Your task to perform on an android device: turn off priority inbox in the gmail app Image 0: 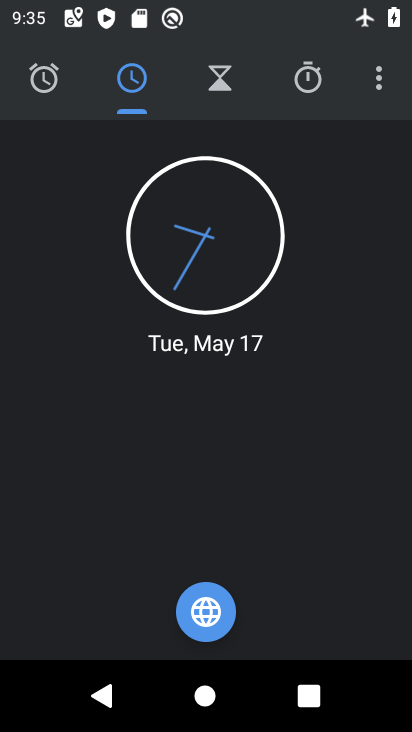
Step 0: press home button
Your task to perform on an android device: turn off priority inbox in the gmail app Image 1: 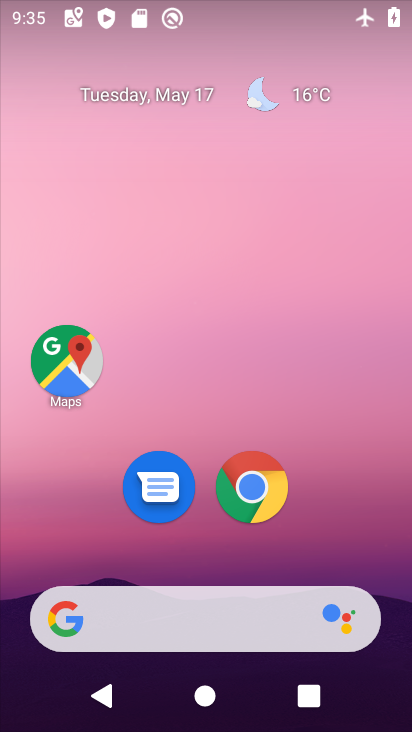
Step 1: drag from (203, 519) to (207, 7)
Your task to perform on an android device: turn off priority inbox in the gmail app Image 2: 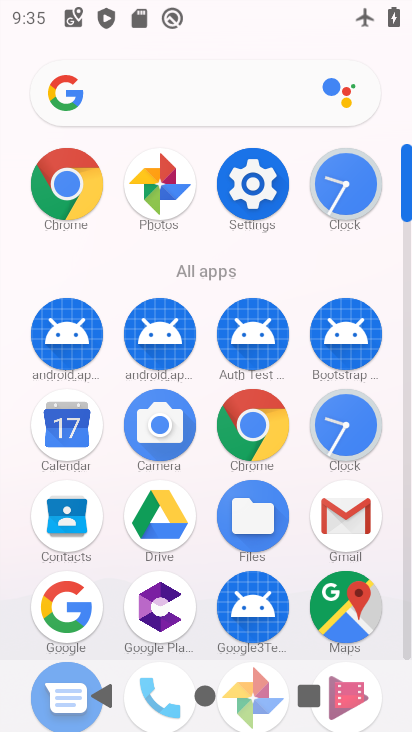
Step 2: click (336, 510)
Your task to perform on an android device: turn off priority inbox in the gmail app Image 3: 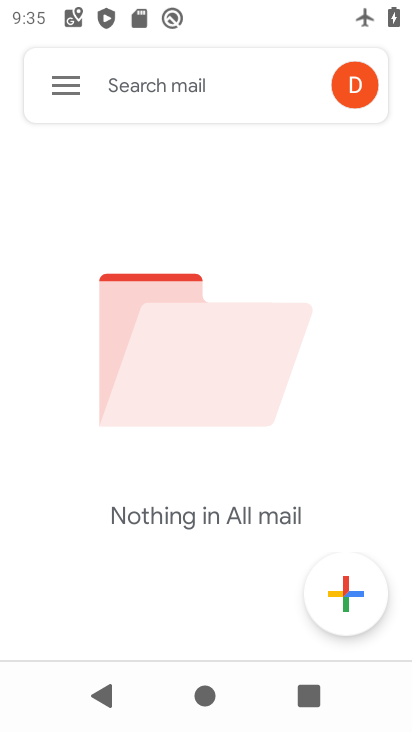
Step 3: click (71, 78)
Your task to perform on an android device: turn off priority inbox in the gmail app Image 4: 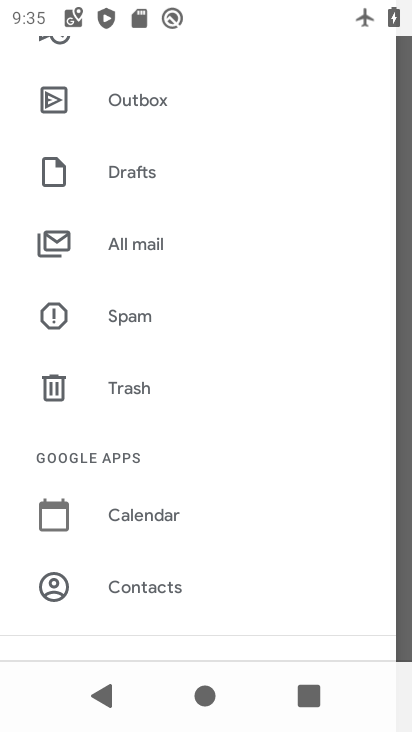
Step 4: drag from (143, 515) to (125, 219)
Your task to perform on an android device: turn off priority inbox in the gmail app Image 5: 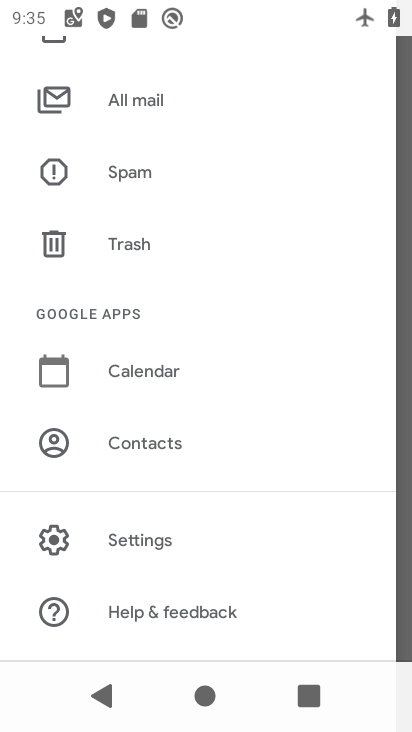
Step 5: click (112, 547)
Your task to perform on an android device: turn off priority inbox in the gmail app Image 6: 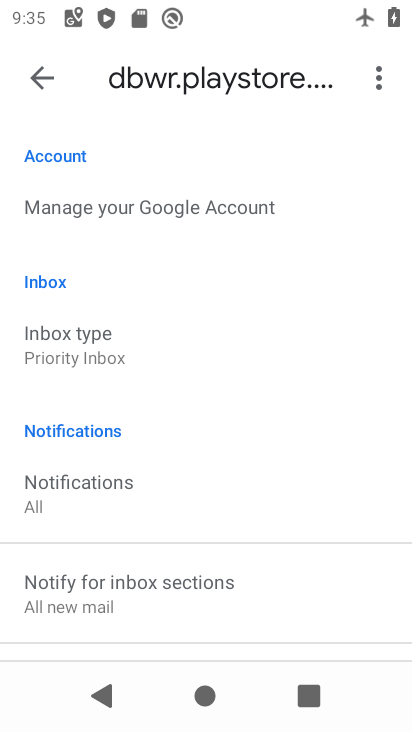
Step 6: click (68, 356)
Your task to perform on an android device: turn off priority inbox in the gmail app Image 7: 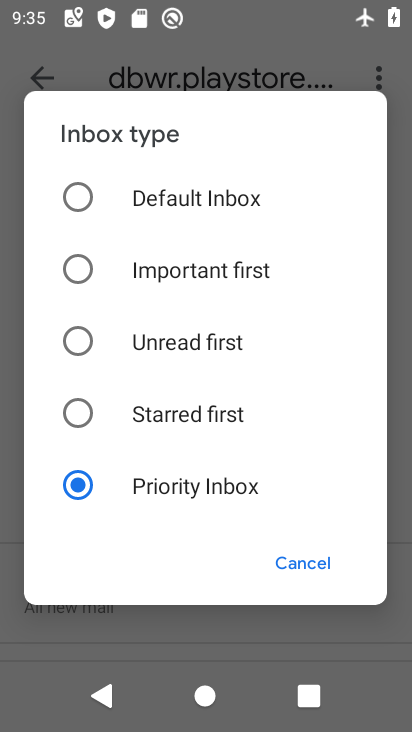
Step 7: click (69, 184)
Your task to perform on an android device: turn off priority inbox in the gmail app Image 8: 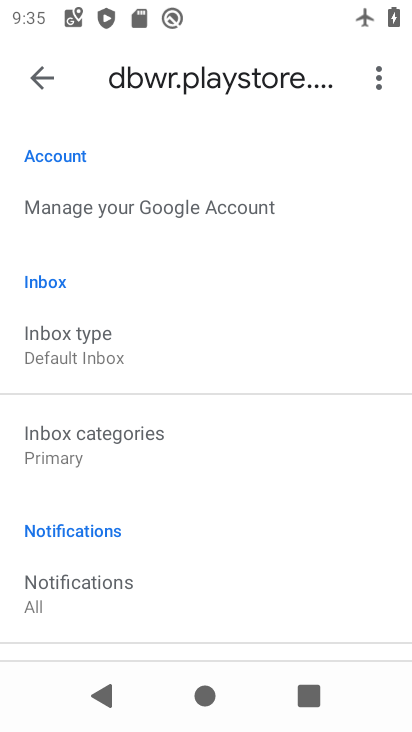
Step 8: task complete